Your task to perform on an android device: toggle airplane mode Image 0: 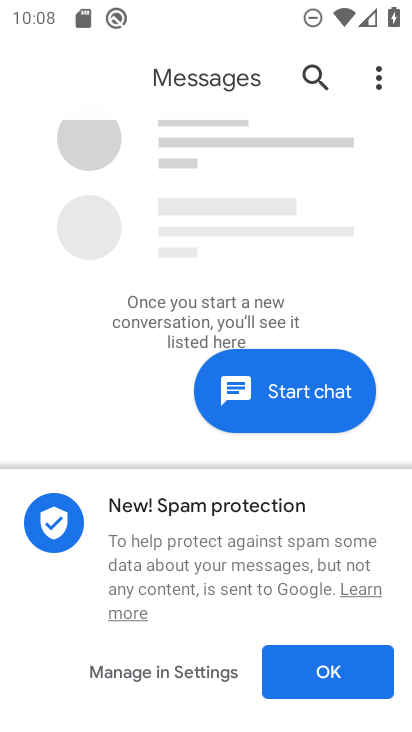
Step 0: press home button
Your task to perform on an android device: toggle airplane mode Image 1: 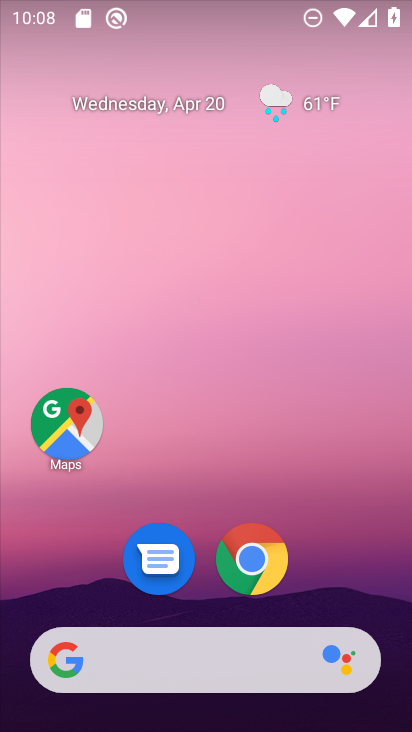
Step 1: drag from (379, 607) to (344, 173)
Your task to perform on an android device: toggle airplane mode Image 2: 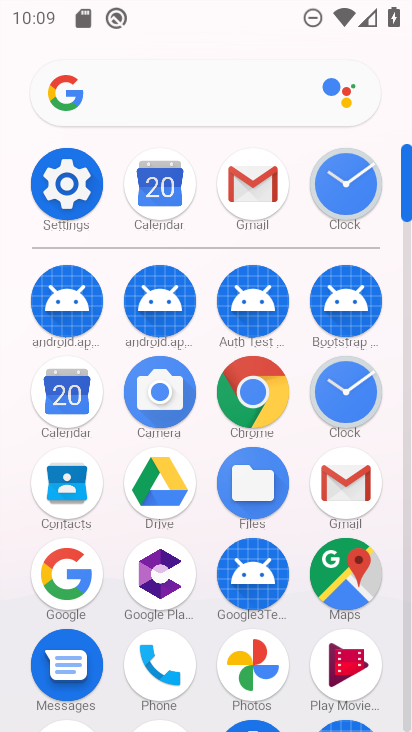
Step 2: click (406, 707)
Your task to perform on an android device: toggle airplane mode Image 3: 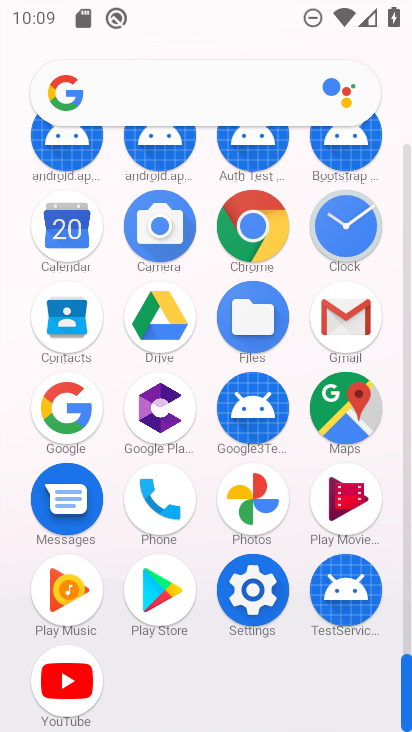
Step 3: click (253, 589)
Your task to perform on an android device: toggle airplane mode Image 4: 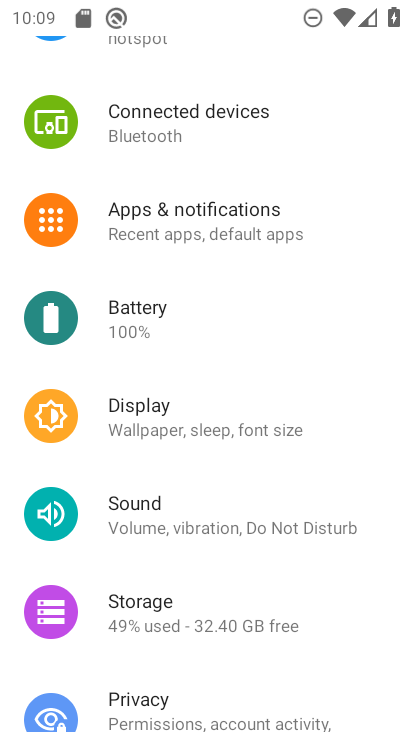
Step 4: drag from (322, 273) to (317, 437)
Your task to perform on an android device: toggle airplane mode Image 5: 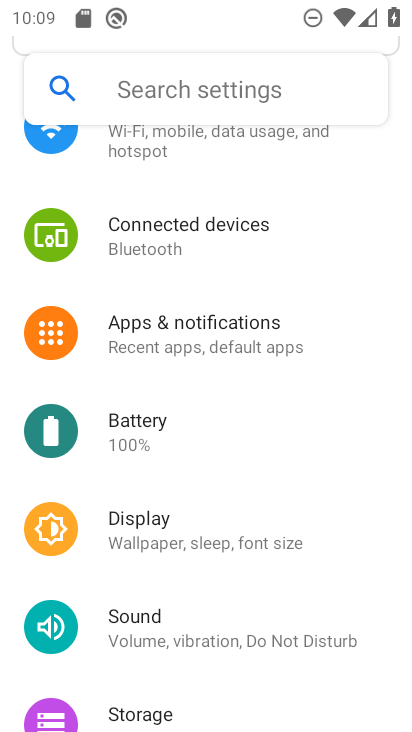
Step 5: drag from (313, 223) to (311, 462)
Your task to perform on an android device: toggle airplane mode Image 6: 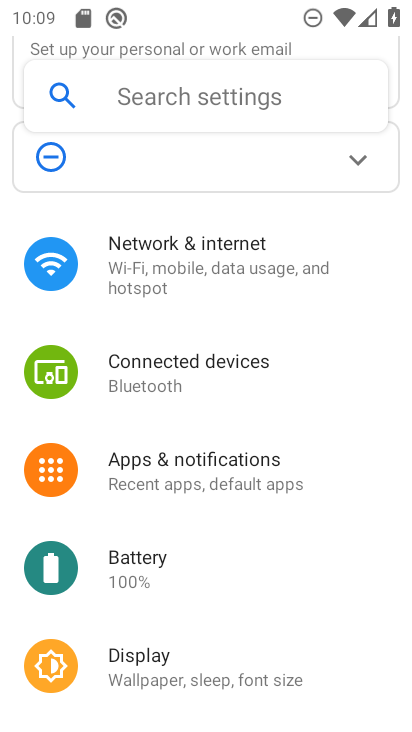
Step 6: click (159, 257)
Your task to perform on an android device: toggle airplane mode Image 7: 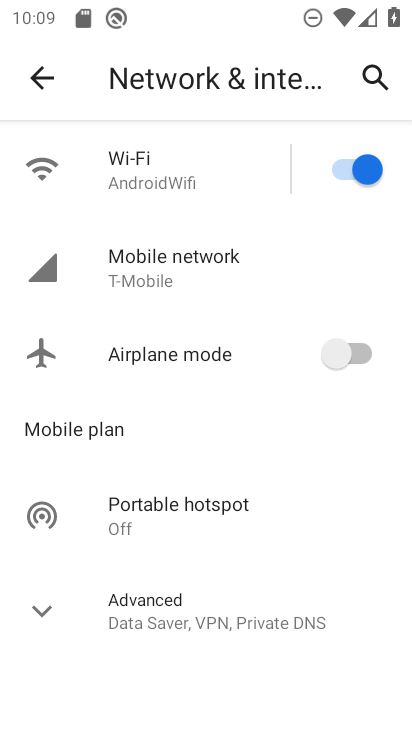
Step 7: click (367, 353)
Your task to perform on an android device: toggle airplane mode Image 8: 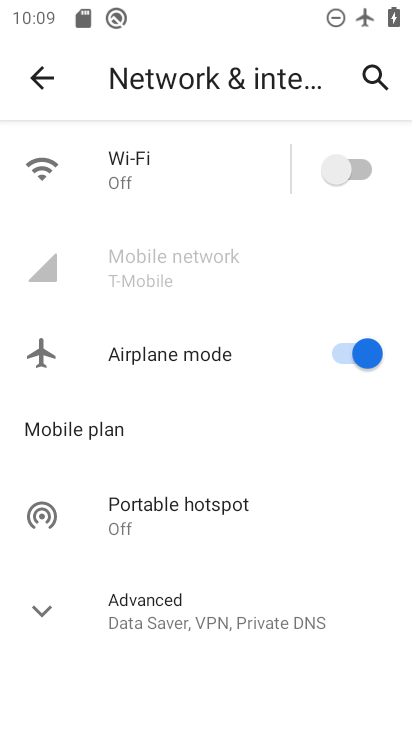
Step 8: task complete